Your task to perform on an android device: open a new tab in the chrome app Image 0: 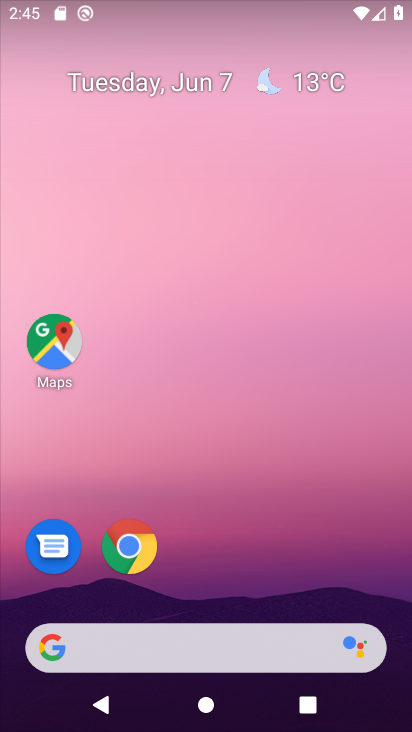
Step 0: drag from (299, 577) to (306, 85)
Your task to perform on an android device: open a new tab in the chrome app Image 1: 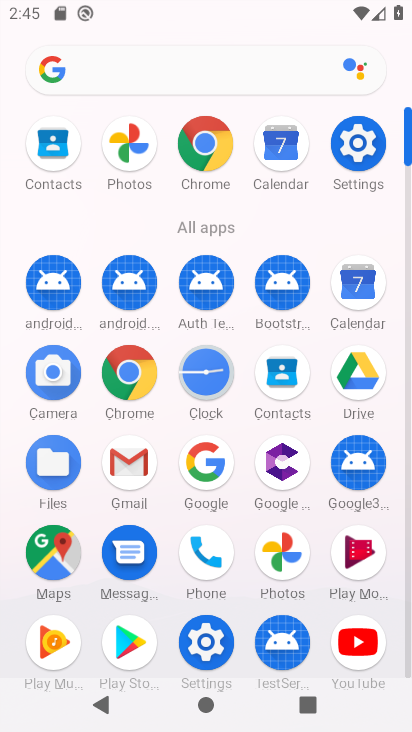
Step 1: click (128, 386)
Your task to perform on an android device: open a new tab in the chrome app Image 2: 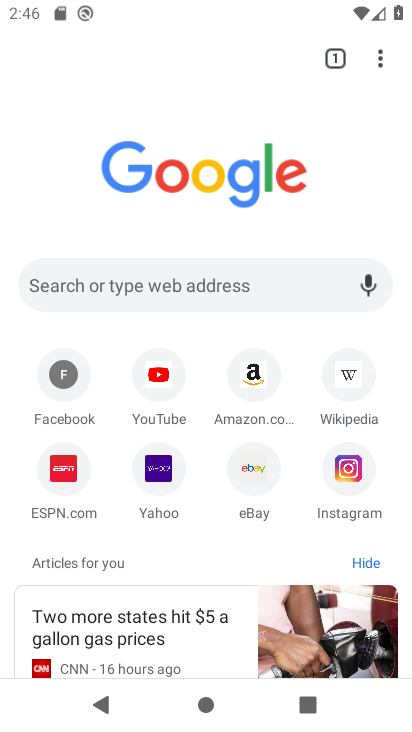
Step 2: click (380, 71)
Your task to perform on an android device: open a new tab in the chrome app Image 3: 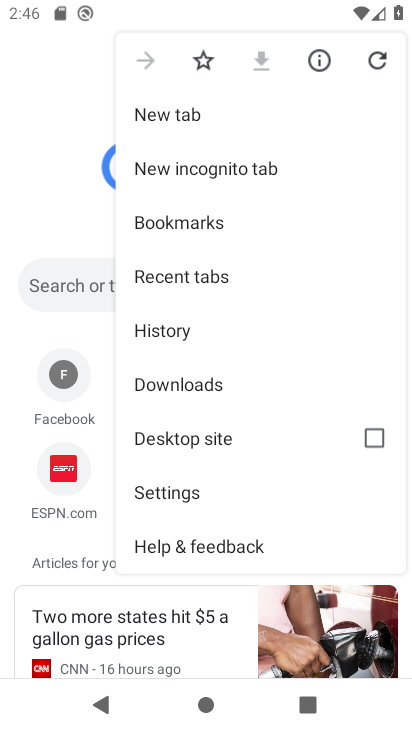
Step 3: click (190, 130)
Your task to perform on an android device: open a new tab in the chrome app Image 4: 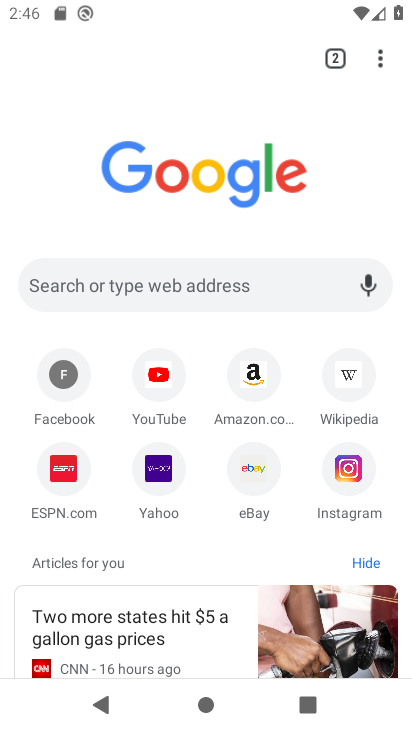
Step 4: task complete